Your task to perform on an android device: Go to Wikipedia Image 0: 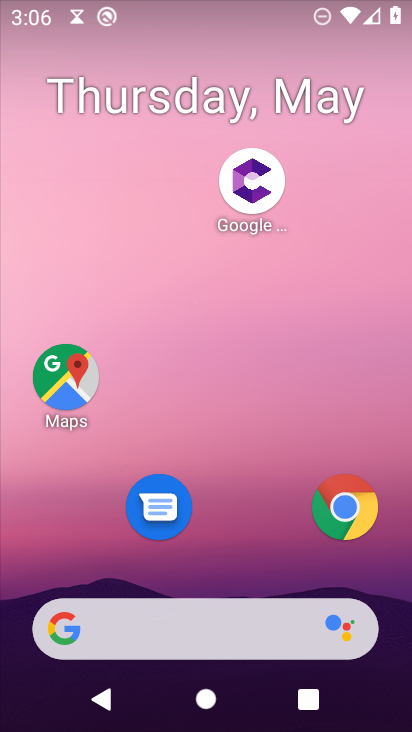
Step 0: click (222, 635)
Your task to perform on an android device: Go to Wikipedia Image 1: 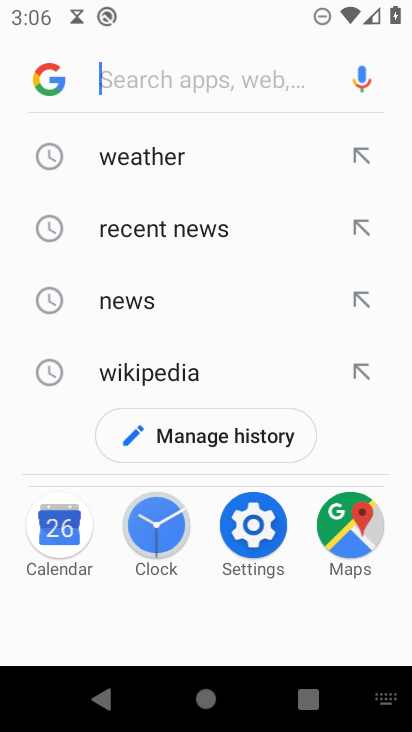
Step 1: type "Wikipedia"
Your task to perform on an android device: Go to Wikipedia Image 2: 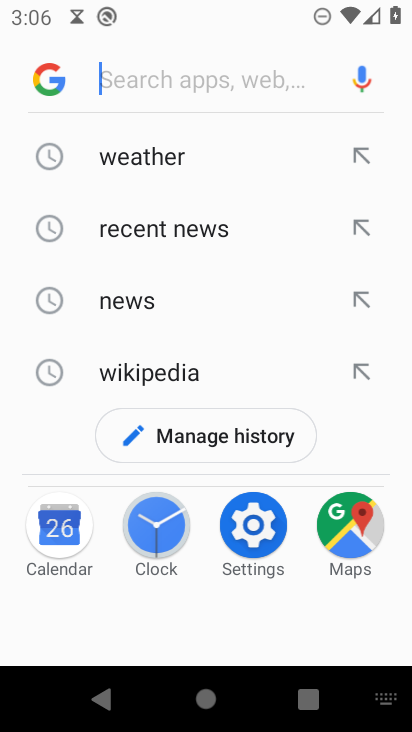
Step 2: click (201, 85)
Your task to perform on an android device: Go to Wikipedia Image 3: 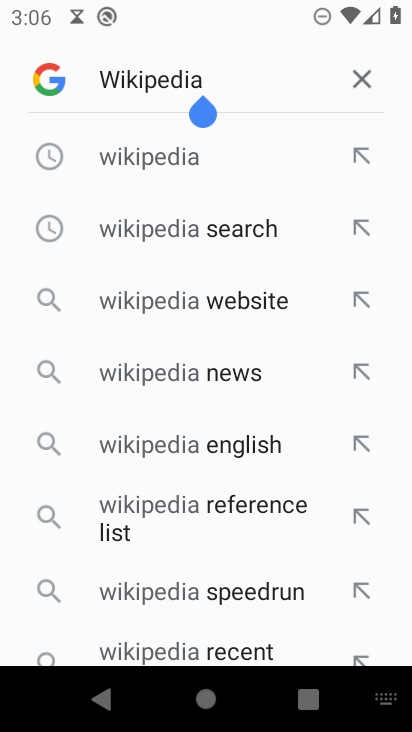
Step 3: click (136, 157)
Your task to perform on an android device: Go to Wikipedia Image 4: 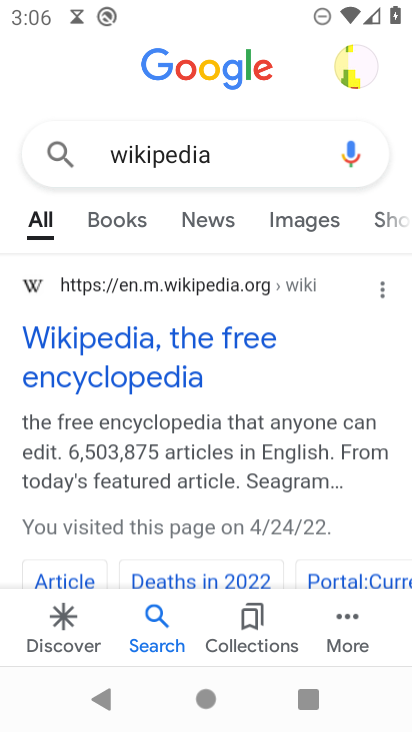
Step 4: click (114, 336)
Your task to perform on an android device: Go to Wikipedia Image 5: 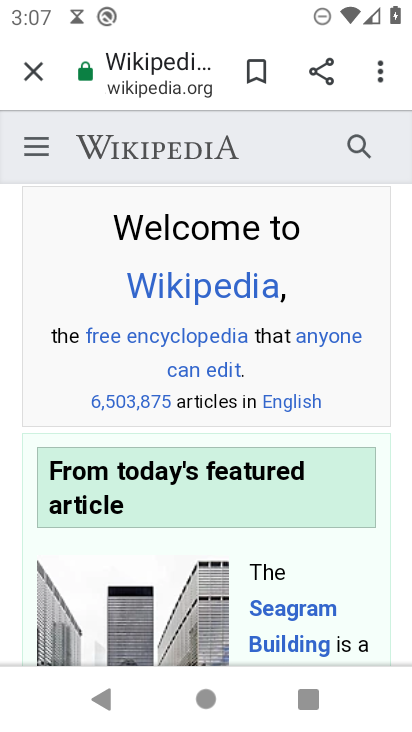
Step 5: task complete